Your task to perform on an android device: turn notification dots off Image 0: 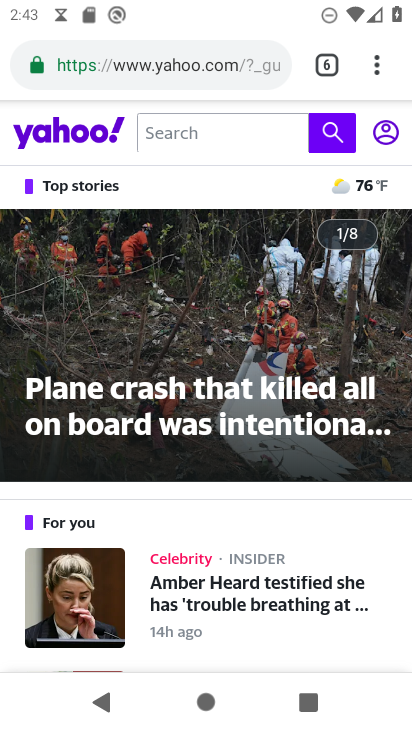
Step 0: press home button
Your task to perform on an android device: turn notification dots off Image 1: 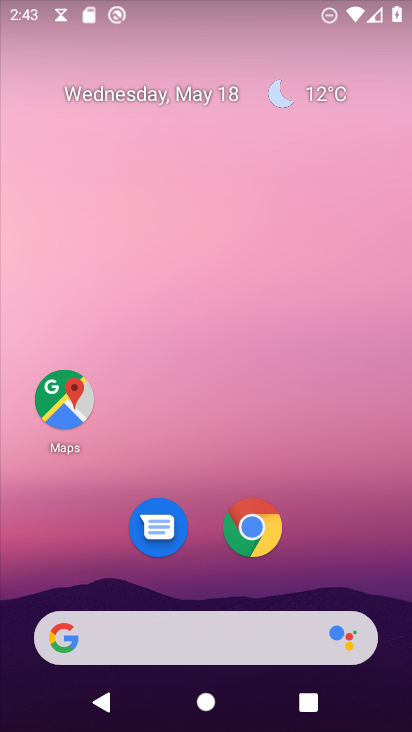
Step 1: drag from (331, 535) to (187, 61)
Your task to perform on an android device: turn notification dots off Image 2: 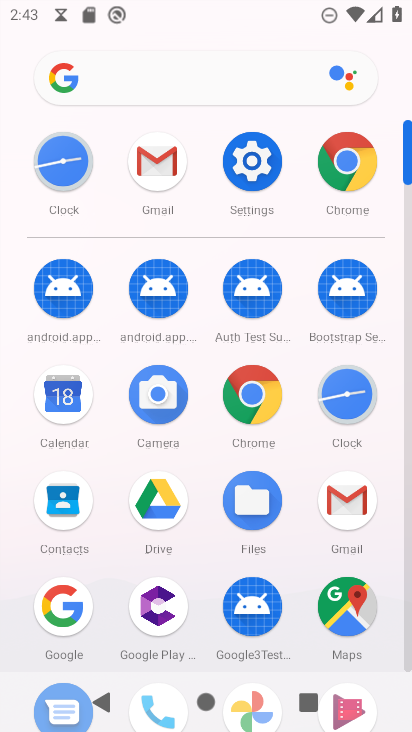
Step 2: click (250, 165)
Your task to perform on an android device: turn notification dots off Image 3: 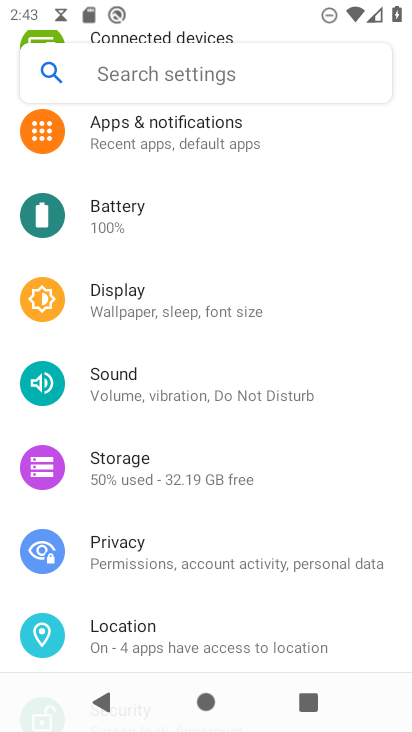
Step 3: click (205, 136)
Your task to perform on an android device: turn notification dots off Image 4: 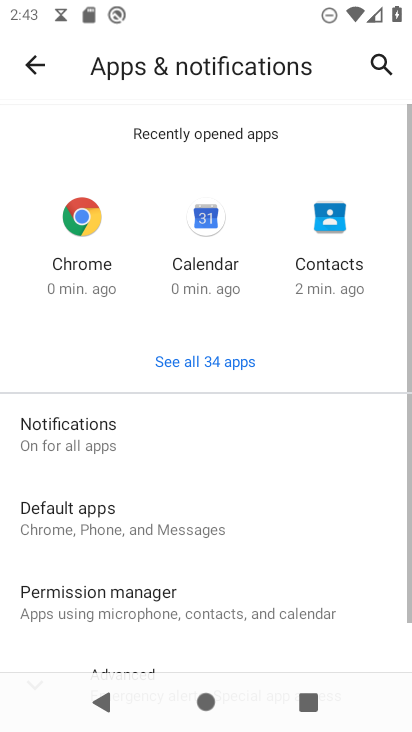
Step 4: click (204, 443)
Your task to perform on an android device: turn notification dots off Image 5: 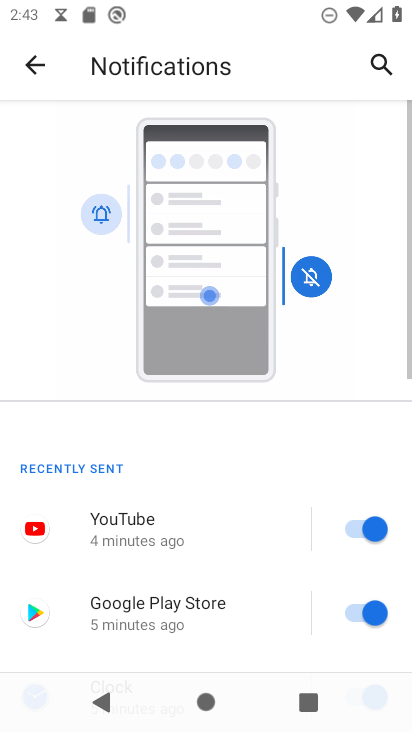
Step 5: drag from (279, 582) to (205, 125)
Your task to perform on an android device: turn notification dots off Image 6: 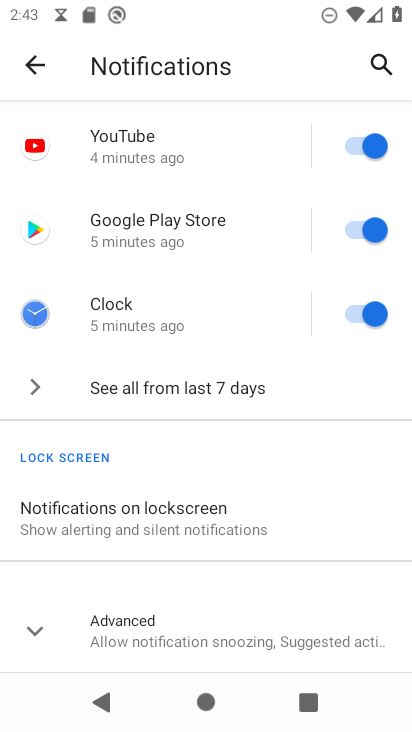
Step 6: click (210, 610)
Your task to perform on an android device: turn notification dots off Image 7: 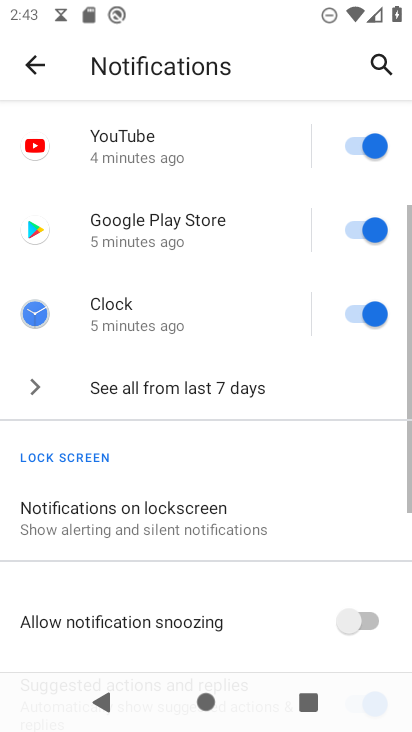
Step 7: task complete